Your task to perform on an android device: allow cookies in the chrome app Image 0: 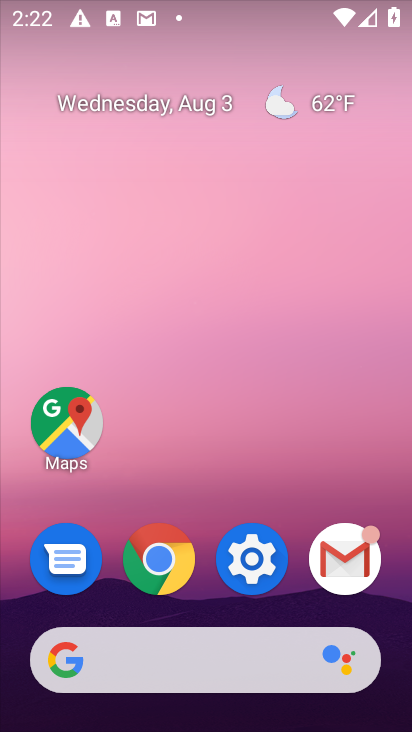
Step 0: press home button
Your task to perform on an android device: allow cookies in the chrome app Image 1: 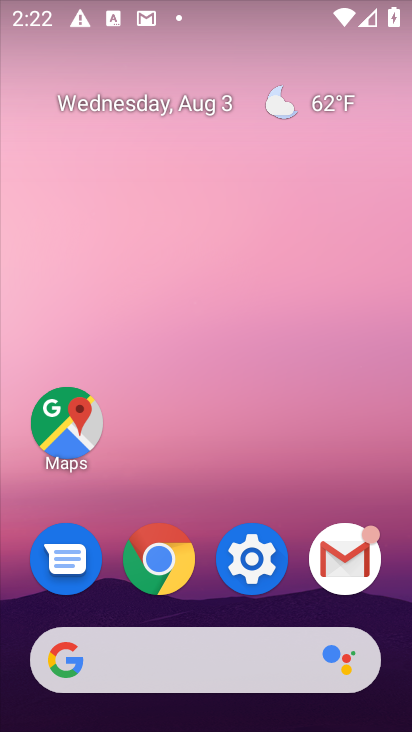
Step 1: click (152, 565)
Your task to perform on an android device: allow cookies in the chrome app Image 2: 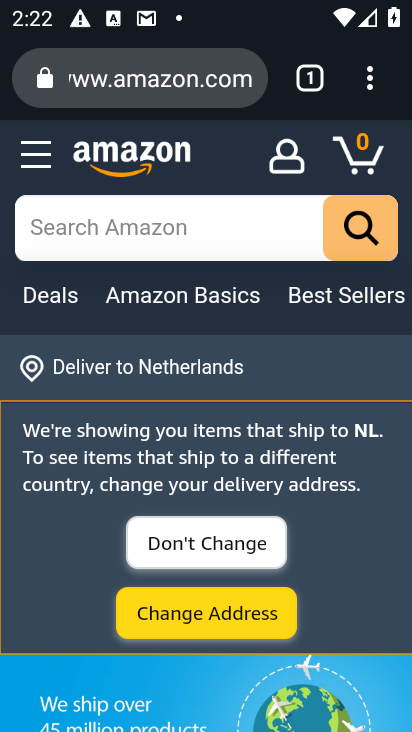
Step 2: click (363, 85)
Your task to perform on an android device: allow cookies in the chrome app Image 3: 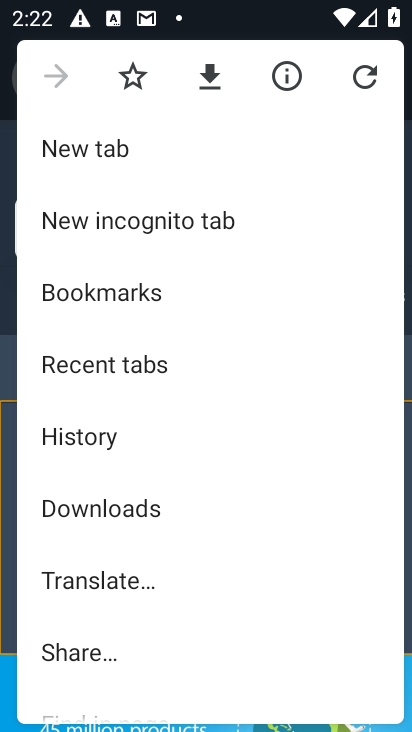
Step 3: drag from (167, 495) to (154, 336)
Your task to perform on an android device: allow cookies in the chrome app Image 4: 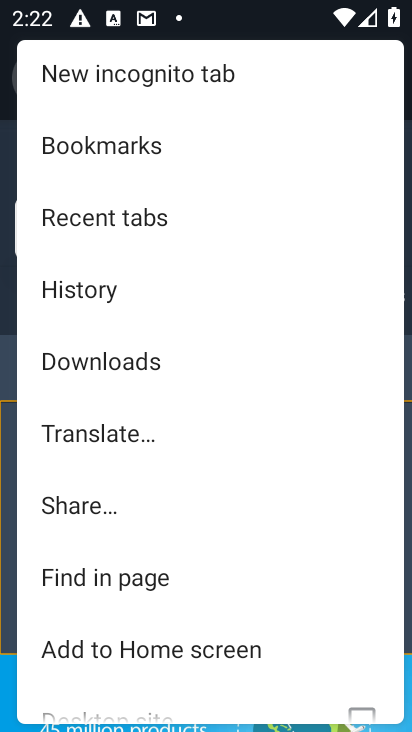
Step 4: drag from (215, 577) to (233, 416)
Your task to perform on an android device: allow cookies in the chrome app Image 5: 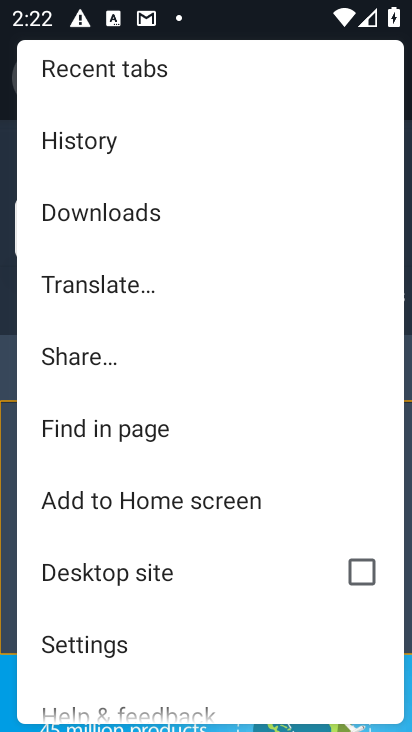
Step 5: click (107, 645)
Your task to perform on an android device: allow cookies in the chrome app Image 6: 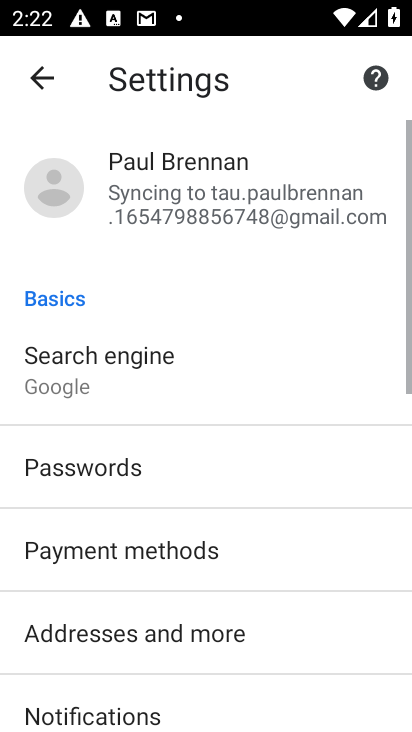
Step 6: drag from (130, 647) to (141, 413)
Your task to perform on an android device: allow cookies in the chrome app Image 7: 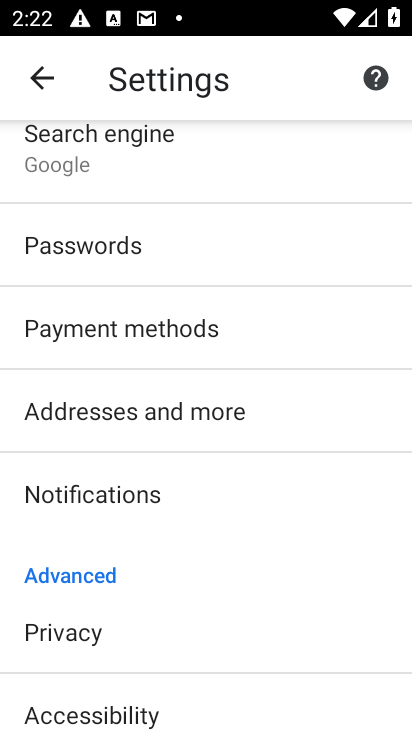
Step 7: drag from (200, 668) to (191, 459)
Your task to perform on an android device: allow cookies in the chrome app Image 8: 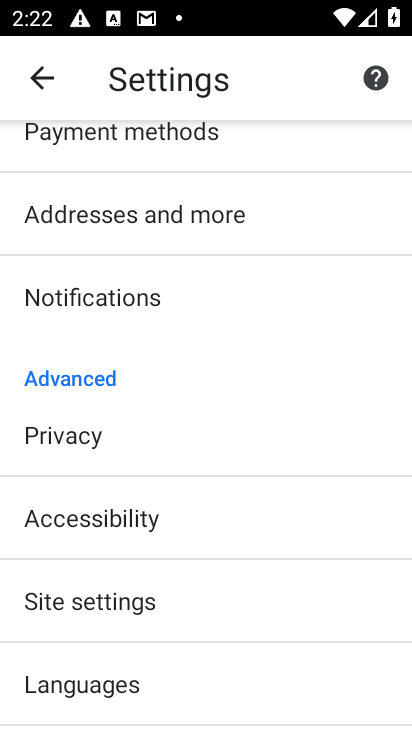
Step 8: click (140, 607)
Your task to perform on an android device: allow cookies in the chrome app Image 9: 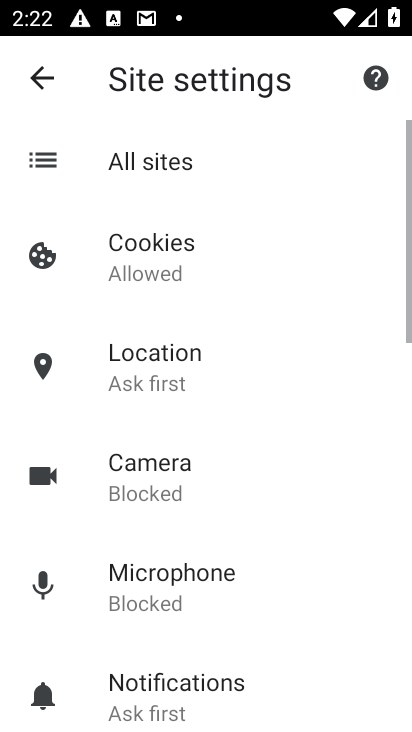
Step 9: click (153, 262)
Your task to perform on an android device: allow cookies in the chrome app Image 10: 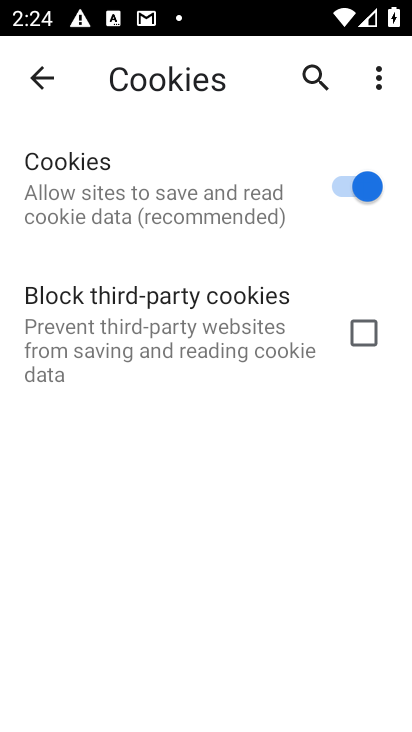
Step 10: task complete